Your task to perform on an android device: Check the weather Image 0: 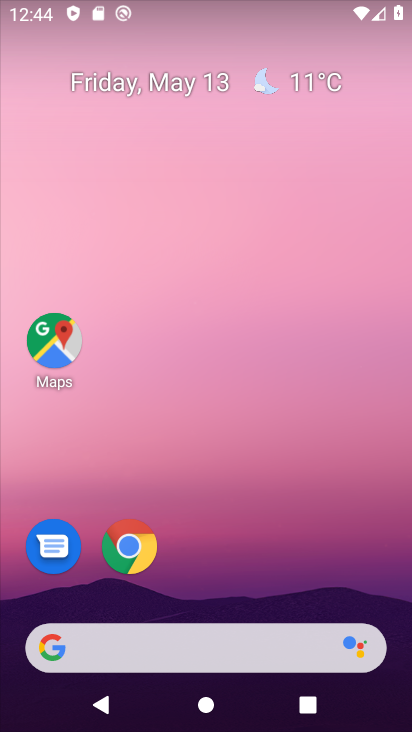
Step 0: drag from (206, 658) to (218, 155)
Your task to perform on an android device: Check the weather Image 1: 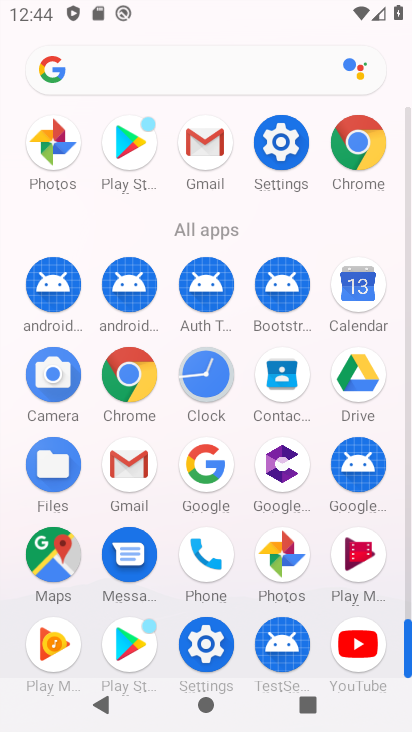
Step 1: click (210, 473)
Your task to perform on an android device: Check the weather Image 2: 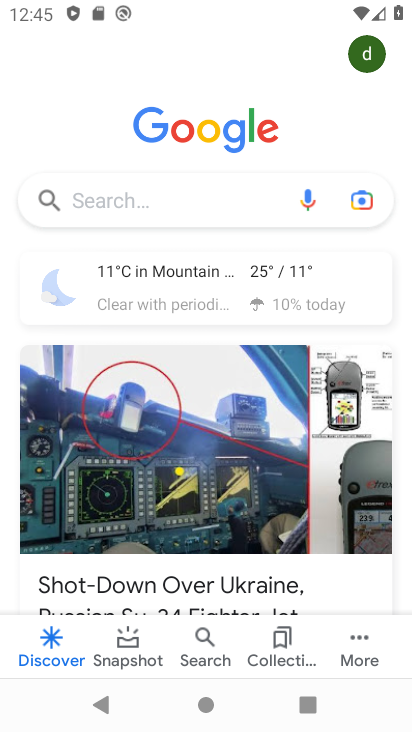
Step 2: click (145, 204)
Your task to perform on an android device: Check the weather Image 3: 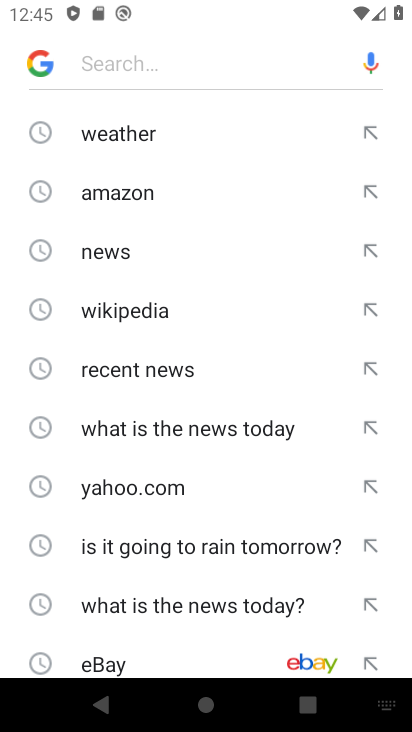
Step 3: click (294, 141)
Your task to perform on an android device: Check the weather Image 4: 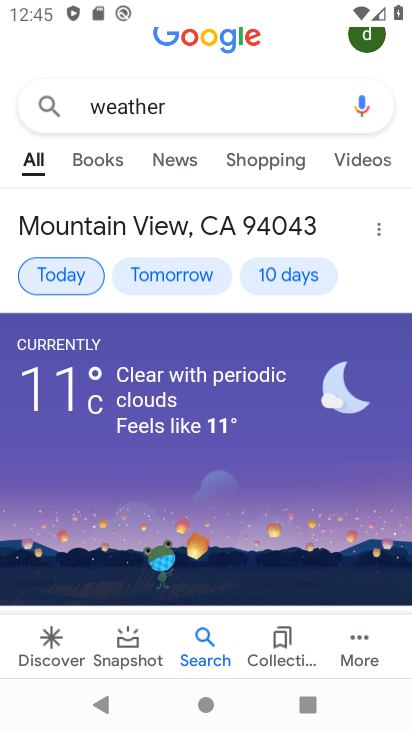
Step 4: task complete